Your task to perform on an android device: turn off location Image 0: 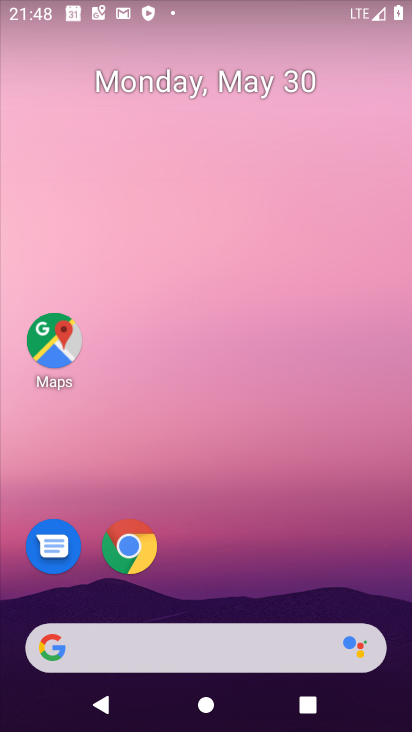
Step 0: drag from (410, 588) to (302, 186)
Your task to perform on an android device: turn off location Image 1: 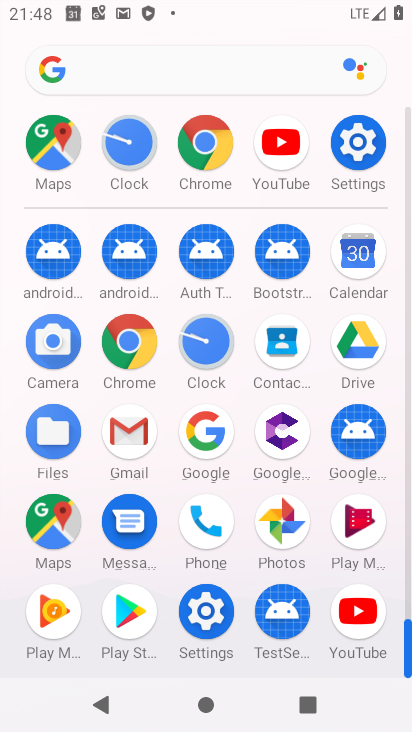
Step 1: click (352, 151)
Your task to perform on an android device: turn off location Image 2: 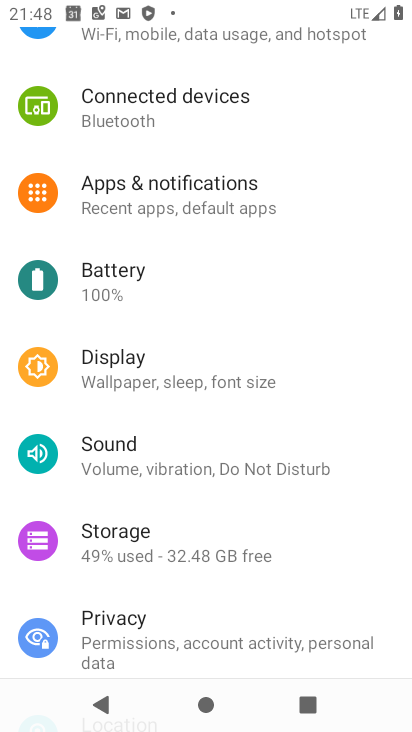
Step 2: drag from (216, 589) to (258, 255)
Your task to perform on an android device: turn off location Image 3: 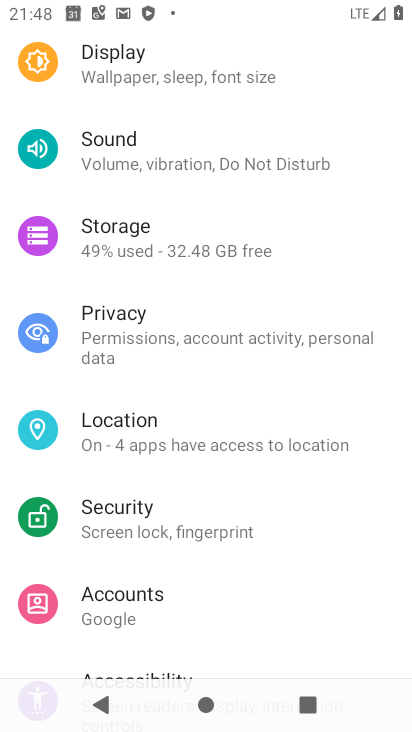
Step 3: click (184, 437)
Your task to perform on an android device: turn off location Image 4: 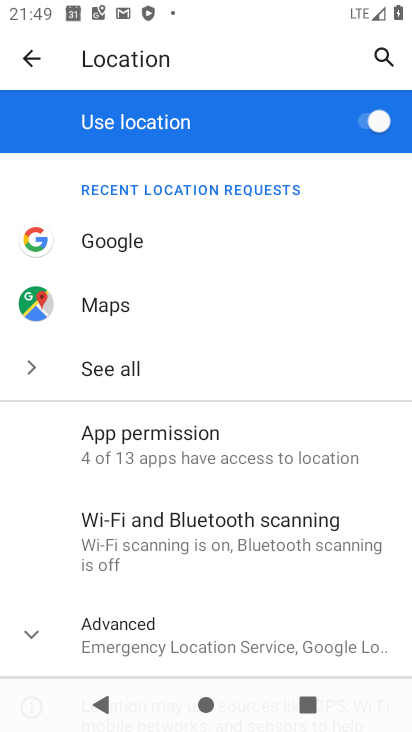
Step 4: click (378, 116)
Your task to perform on an android device: turn off location Image 5: 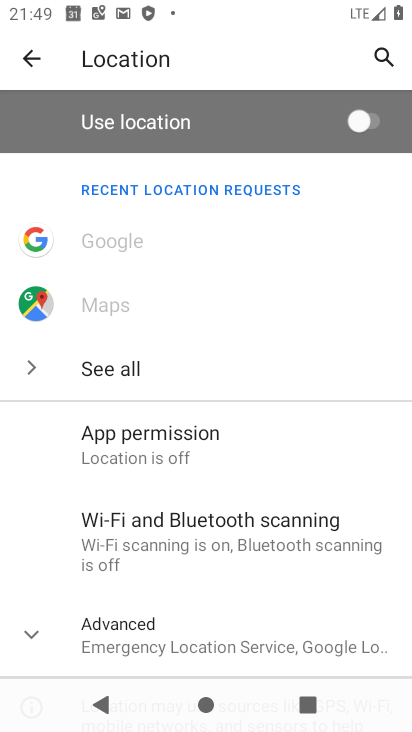
Step 5: task complete